Your task to perform on an android device: Search for custom t-shirts on Etsy. Image 0: 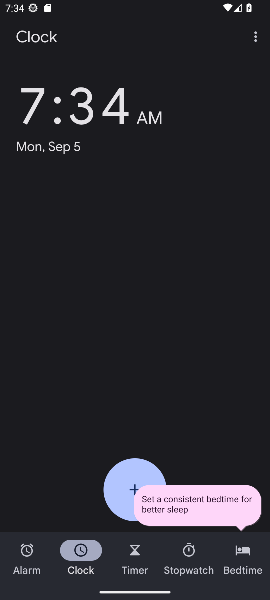
Step 0: press home button
Your task to perform on an android device: Search for custom t-shirts on Etsy. Image 1: 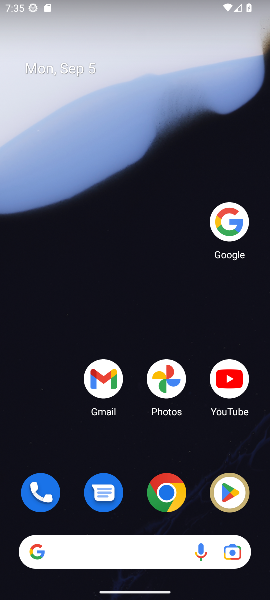
Step 1: click (227, 211)
Your task to perform on an android device: Search for custom t-shirts on Etsy. Image 2: 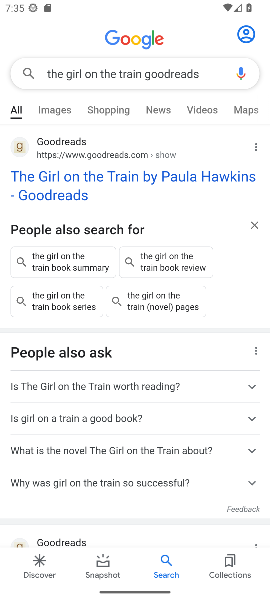
Step 2: click (197, 64)
Your task to perform on an android device: Search for custom t-shirts on Etsy. Image 3: 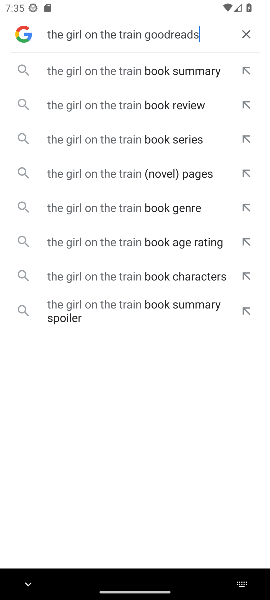
Step 3: click (248, 31)
Your task to perform on an android device: Search for custom t-shirts on Etsy. Image 4: 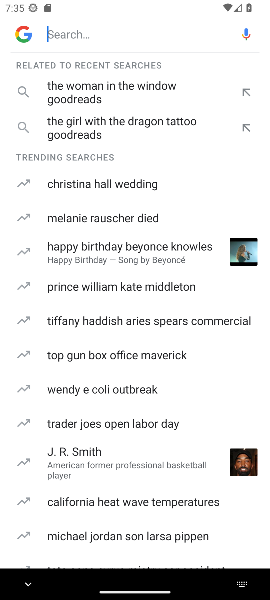
Step 4: click (127, 37)
Your task to perform on an android device: Search for custom t-shirts on Etsy. Image 5: 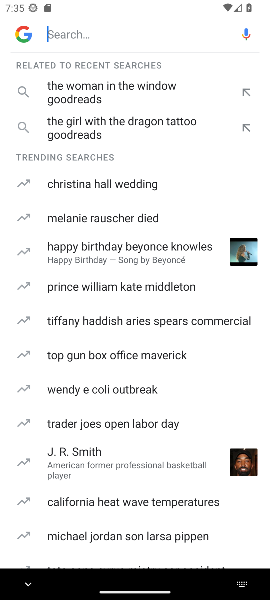
Step 5: type "custom t-shirts on Etsy "
Your task to perform on an android device: Search for custom t-shirts on Etsy. Image 6: 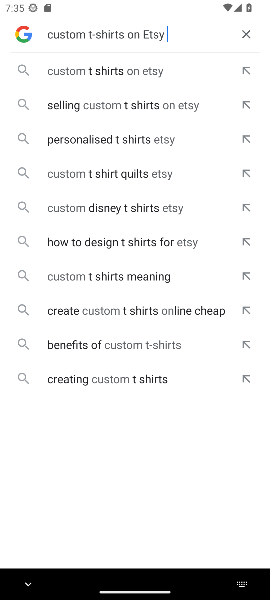
Step 6: click (61, 65)
Your task to perform on an android device: Search for custom t-shirts on Etsy. Image 7: 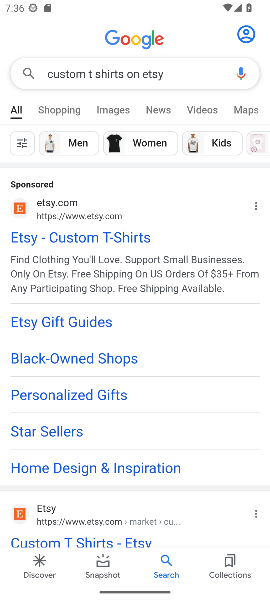
Step 7: task complete